Your task to perform on an android device: Search for Italian restaurants on Maps Image 0: 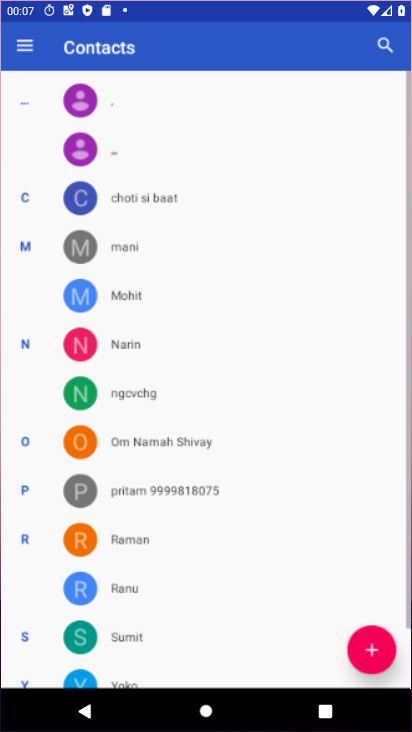
Step 0: press home button
Your task to perform on an android device: Search for Italian restaurants on Maps Image 1: 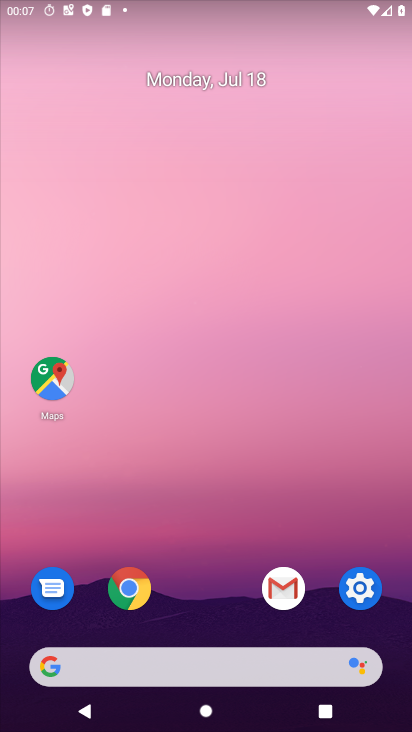
Step 1: click (59, 368)
Your task to perform on an android device: Search for Italian restaurants on Maps Image 2: 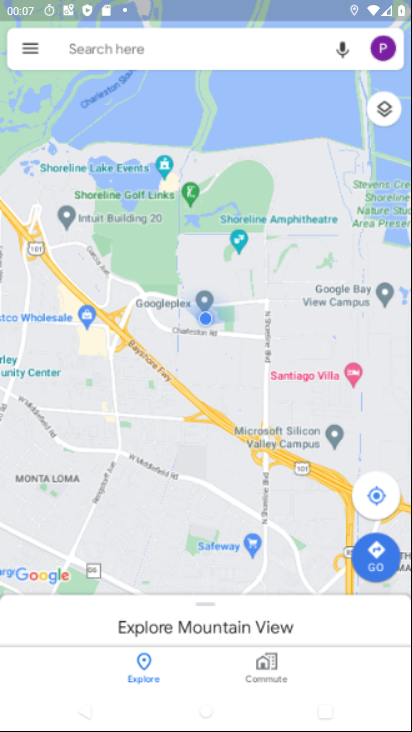
Step 2: click (131, 50)
Your task to perform on an android device: Search for Italian restaurants on Maps Image 3: 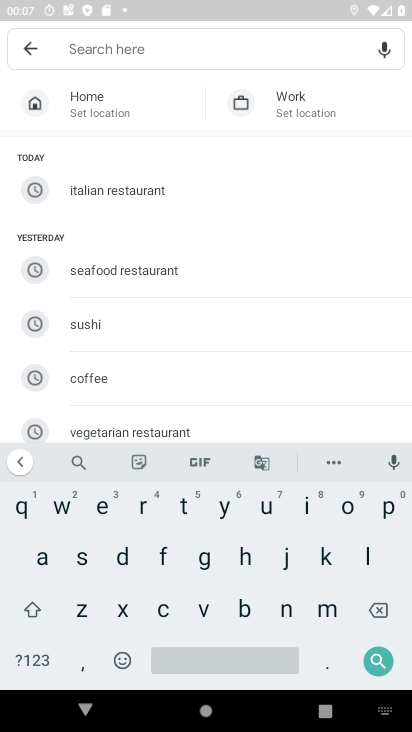
Step 3: click (112, 189)
Your task to perform on an android device: Search for Italian restaurants on Maps Image 4: 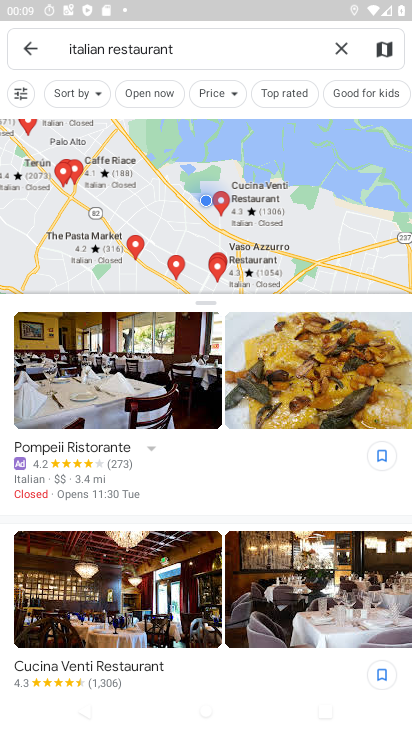
Step 4: task complete